Your task to perform on an android device: Go to accessibility settings Image 0: 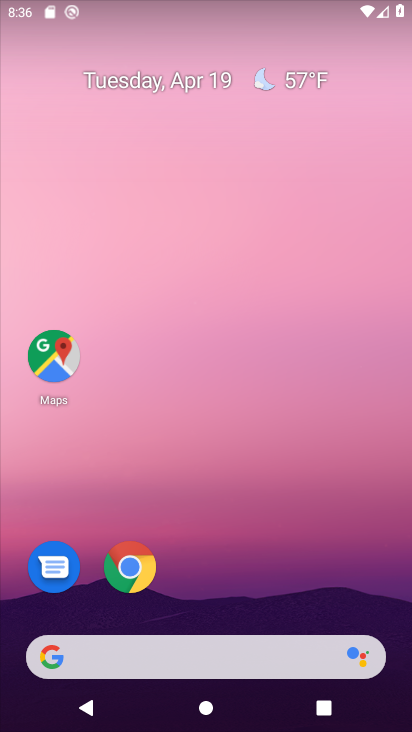
Step 0: drag from (296, 534) to (319, 106)
Your task to perform on an android device: Go to accessibility settings Image 1: 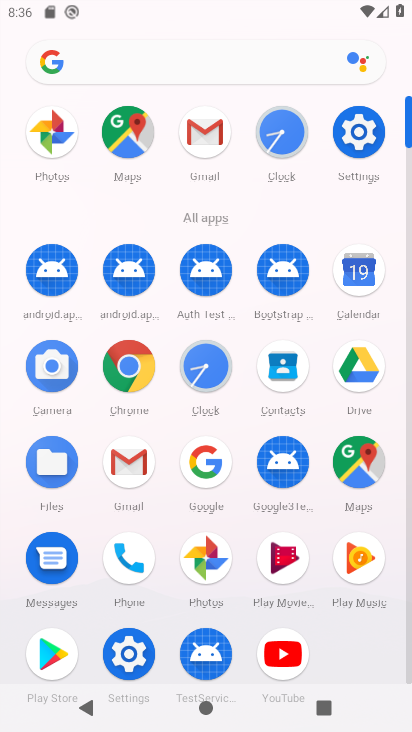
Step 1: click (355, 107)
Your task to perform on an android device: Go to accessibility settings Image 2: 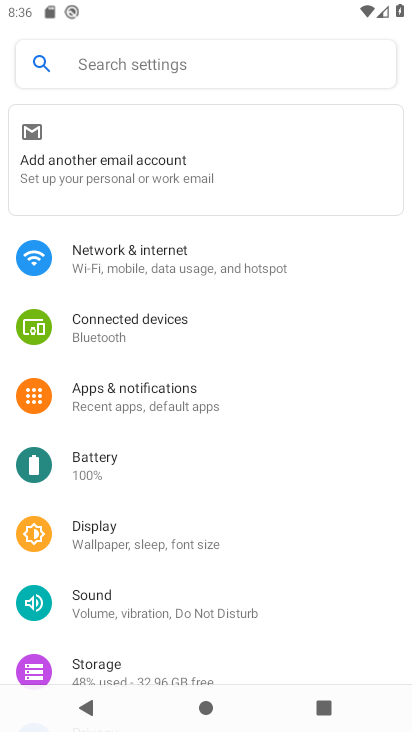
Step 2: drag from (176, 596) to (244, 209)
Your task to perform on an android device: Go to accessibility settings Image 3: 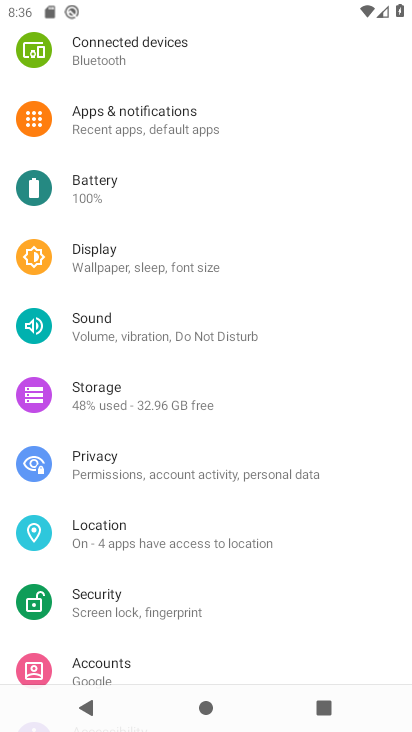
Step 3: drag from (176, 558) to (236, 240)
Your task to perform on an android device: Go to accessibility settings Image 4: 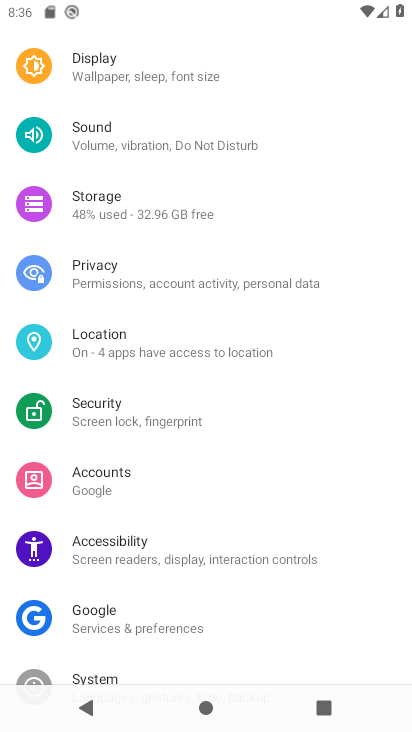
Step 4: click (186, 550)
Your task to perform on an android device: Go to accessibility settings Image 5: 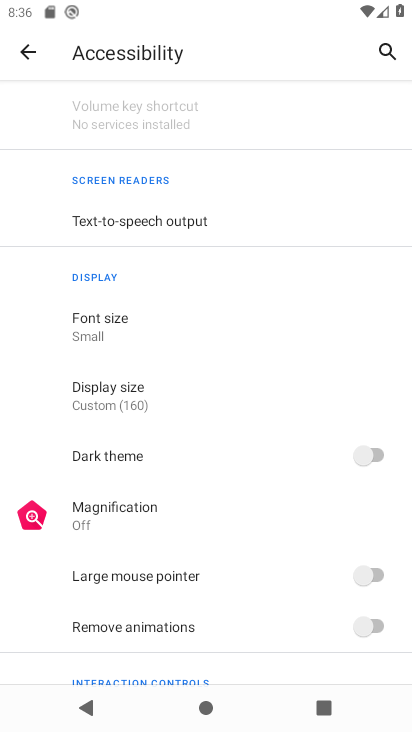
Step 5: task complete